Your task to perform on an android device: change the clock display to digital Image 0: 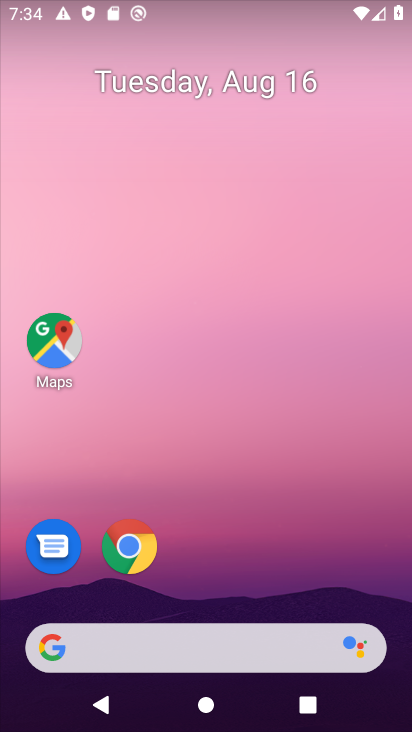
Step 0: drag from (273, 507) to (171, 0)
Your task to perform on an android device: change the clock display to digital Image 1: 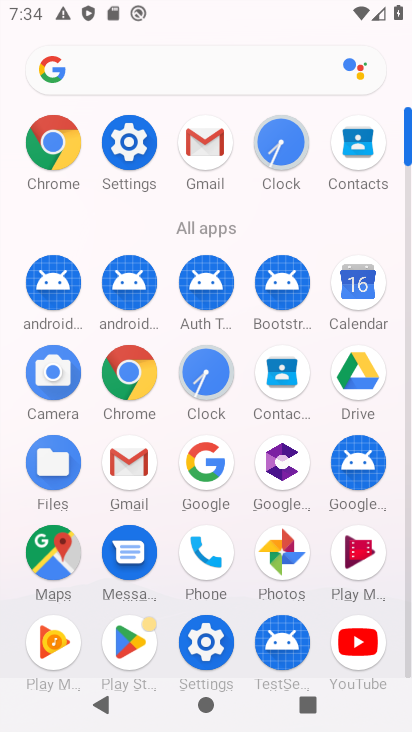
Step 1: click (288, 235)
Your task to perform on an android device: change the clock display to digital Image 2: 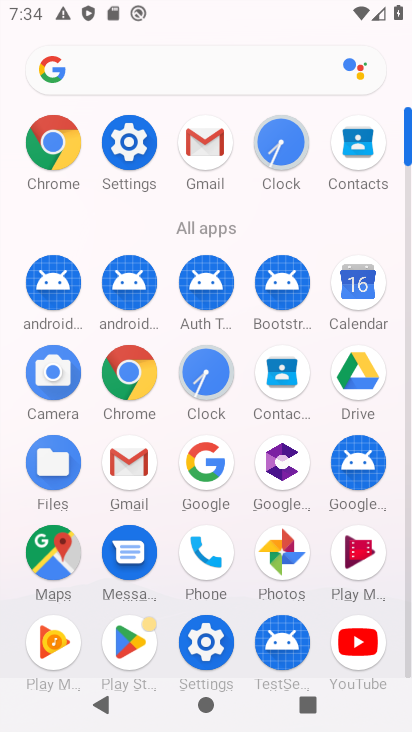
Step 2: click (280, 146)
Your task to perform on an android device: change the clock display to digital Image 3: 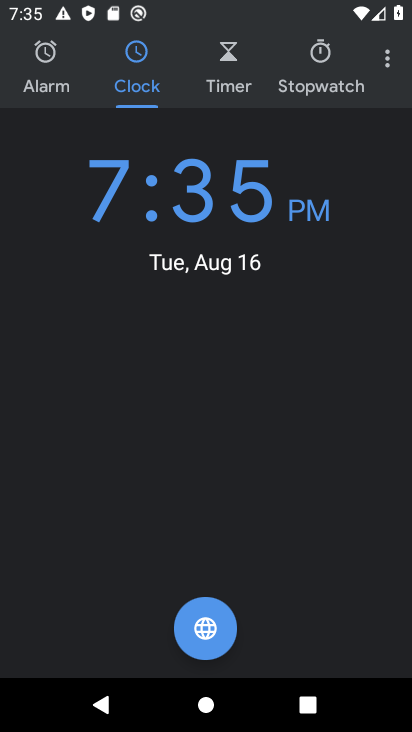
Step 3: task complete